Your task to perform on an android device: turn on location history Image 0: 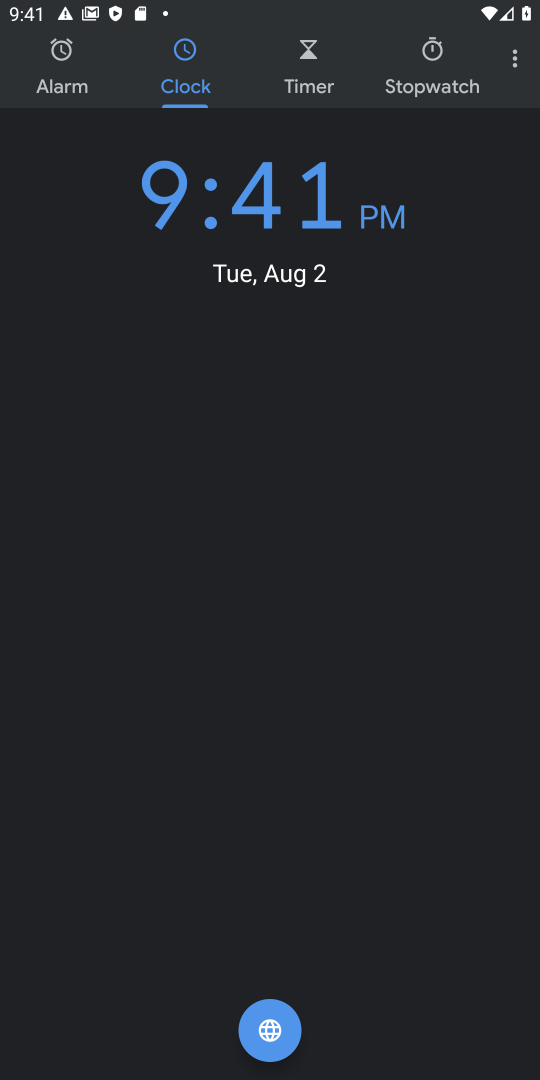
Step 0: press home button
Your task to perform on an android device: turn on location history Image 1: 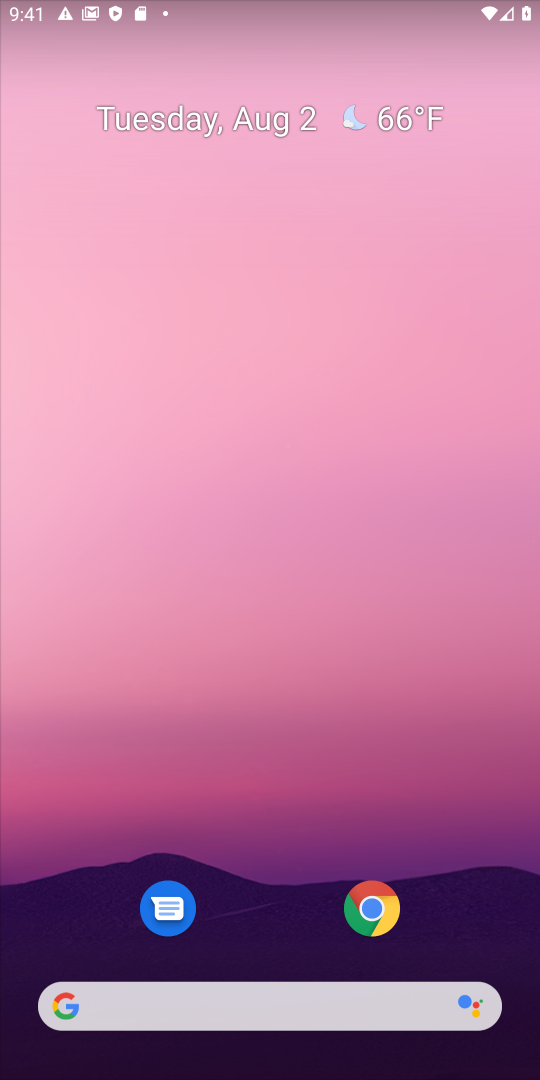
Step 1: drag from (105, 664) to (267, 243)
Your task to perform on an android device: turn on location history Image 2: 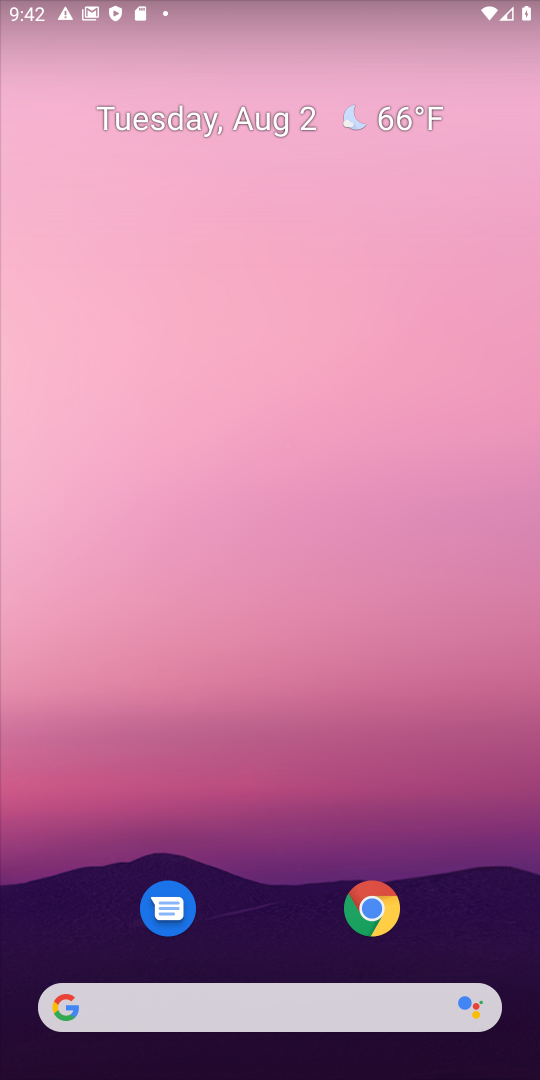
Step 2: drag from (22, 938) to (316, 112)
Your task to perform on an android device: turn on location history Image 3: 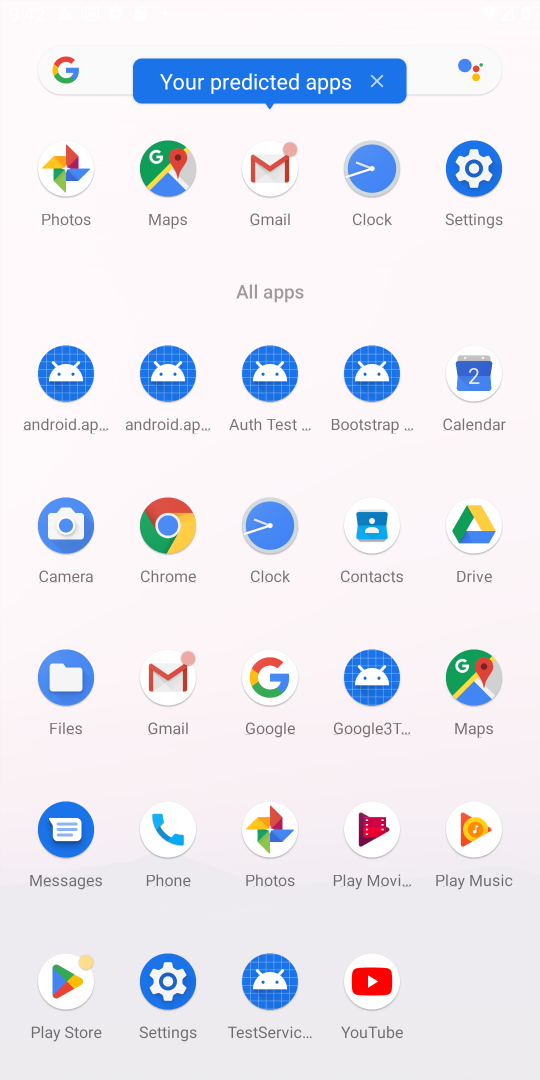
Step 3: click (466, 175)
Your task to perform on an android device: turn on location history Image 4: 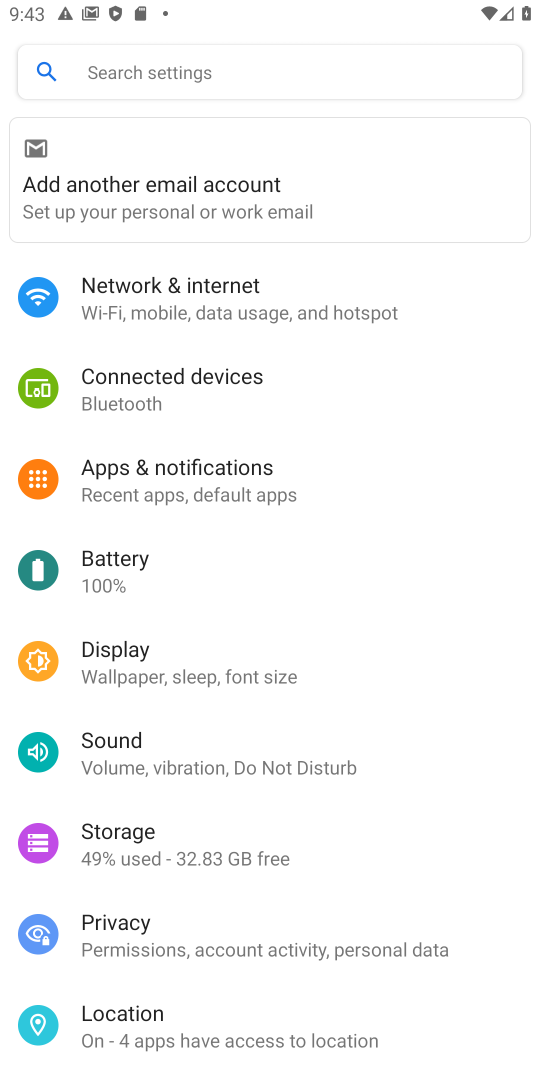
Step 4: click (155, 1024)
Your task to perform on an android device: turn on location history Image 5: 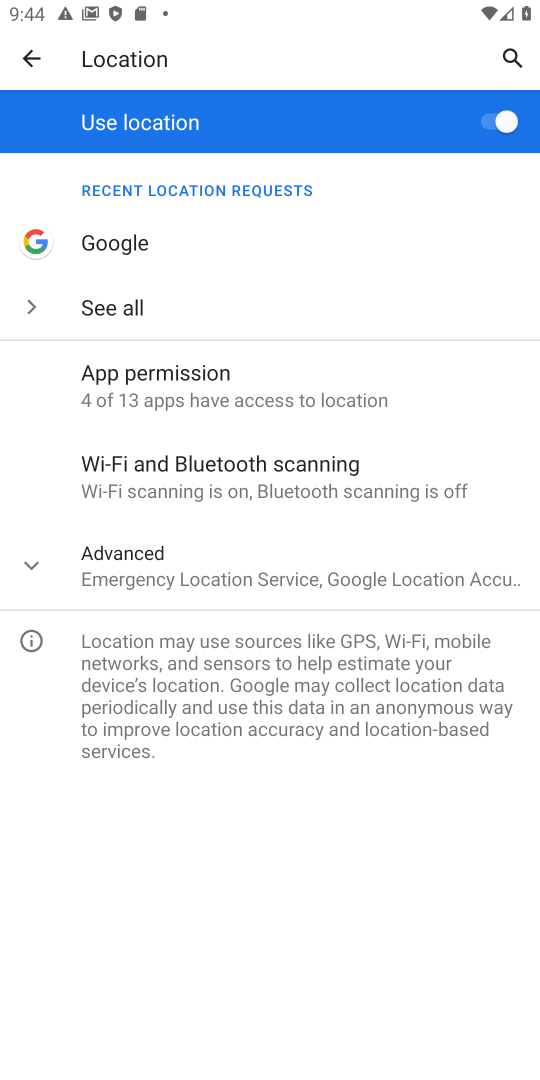
Step 5: click (163, 591)
Your task to perform on an android device: turn on location history Image 6: 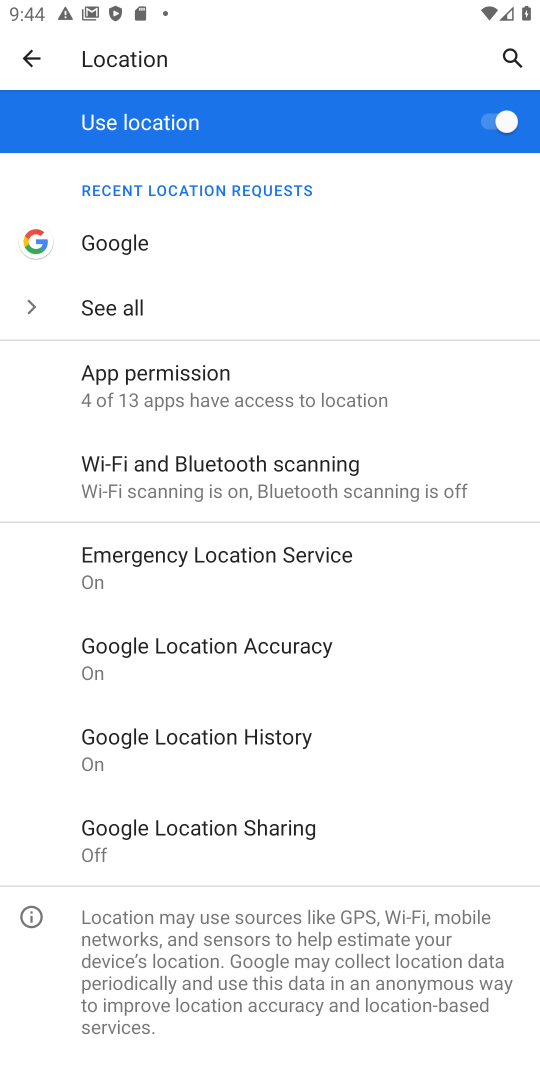
Step 6: click (289, 731)
Your task to perform on an android device: turn on location history Image 7: 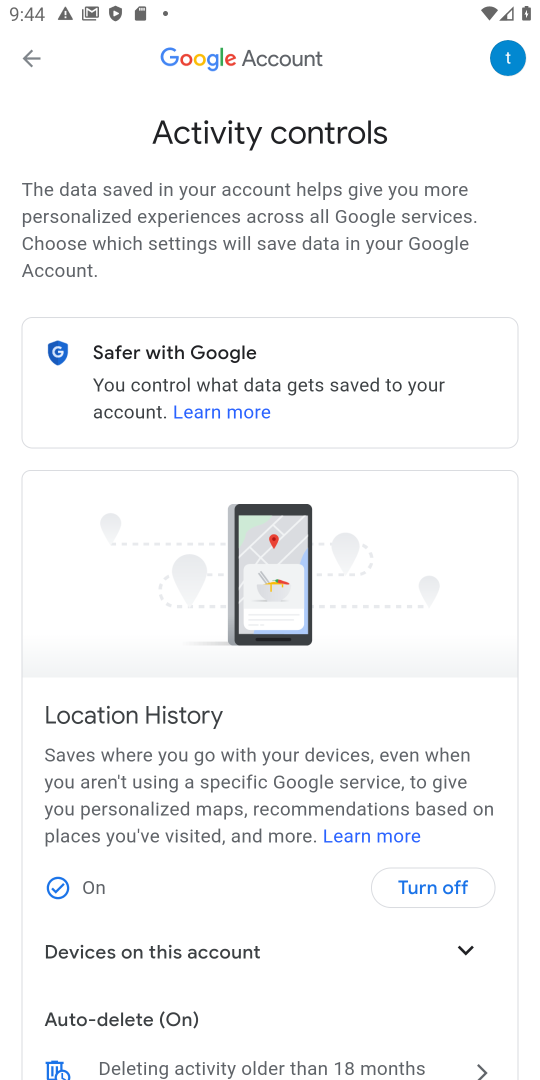
Step 7: task complete